Your task to perform on an android device: toggle translation in the chrome app Image 0: 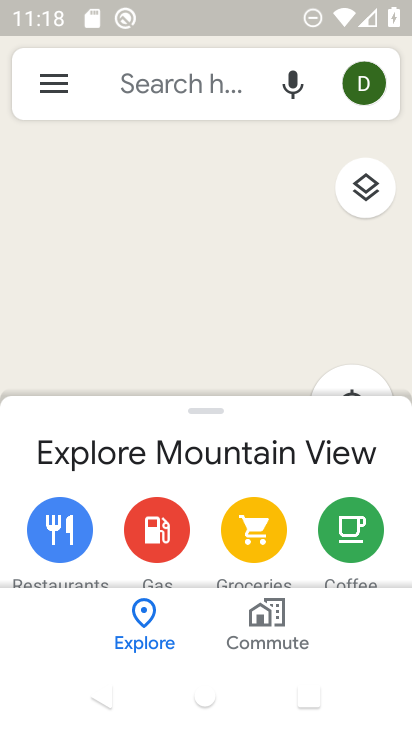
Step 0: press home button
Your task to perform on an android device: toggle translation in the chrome app Image 1: 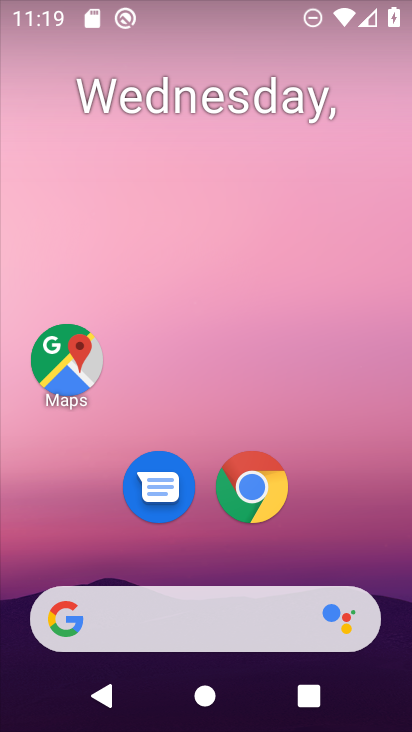
Step 1: click (255, 489)
Your task to perform on an android device: toggle translation in the chrome app Image 2: 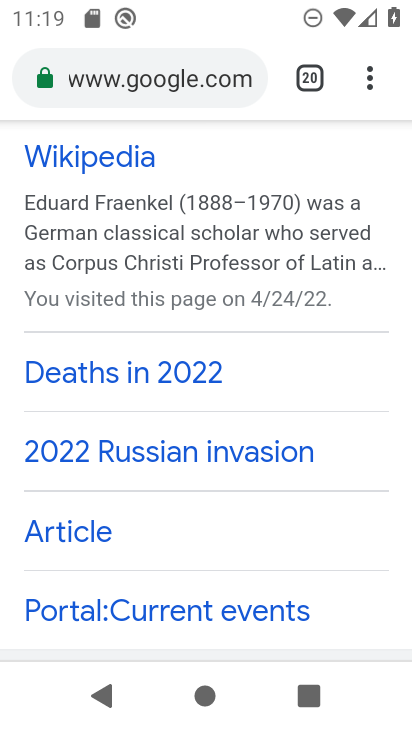
Step 2: click (367, 74)
Your task to perform on an android device: toggle translation in the chrome app Image 3: 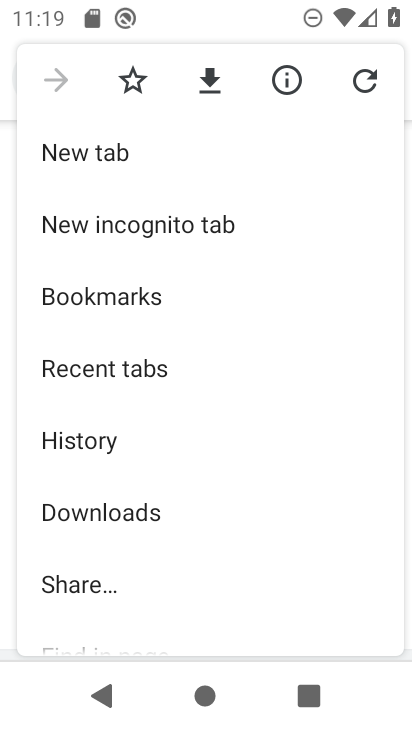
Step 3: drag from (218, 476) to (136, 203)
Your task to perform on an android device: toggle translation in the chrome app Image 4: 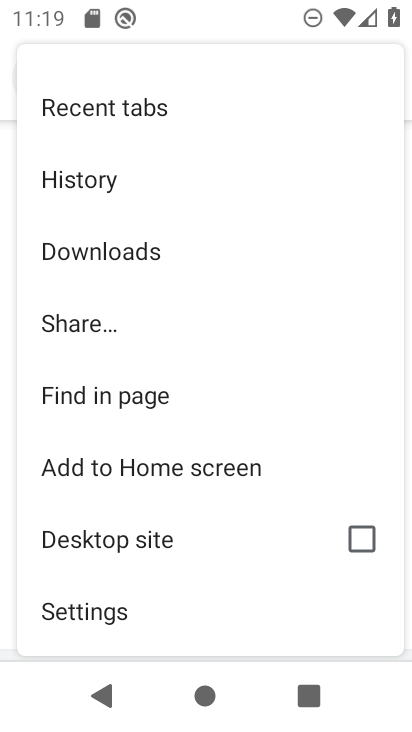
Step 4: drag from (229, 404) to (196, 37)
Your task to perform on an android device: toggle translation in the chrome app Image 5: 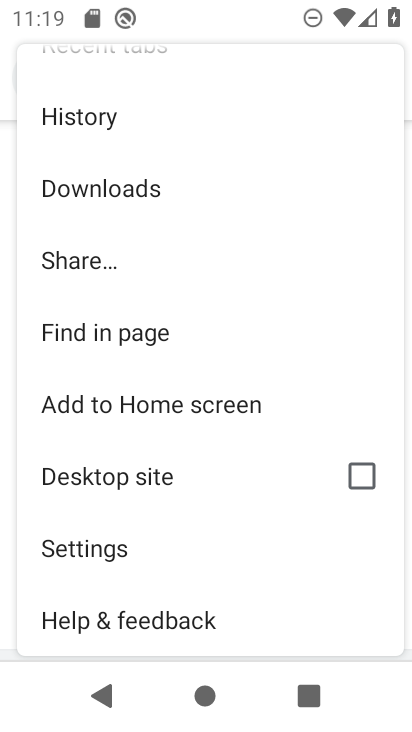
Step 5: drag from (216, 537) to (208, 215)
Your task to perform on an android device: toggle translation in the chrome app Image 6: 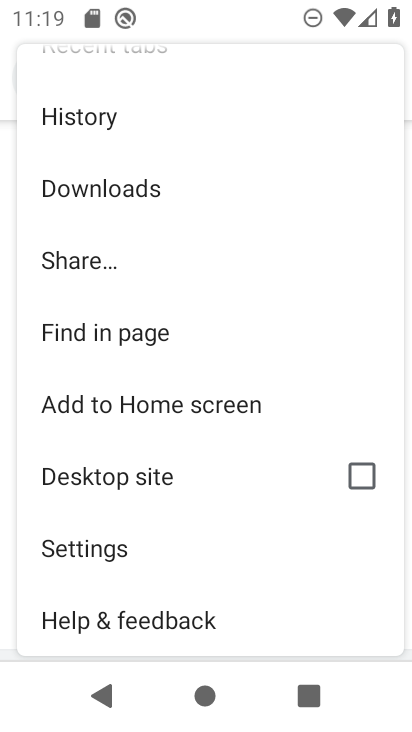
Step 6: click (76, 537)
Your task to perform on an android device: toggle translation in the chrome app Image 7: 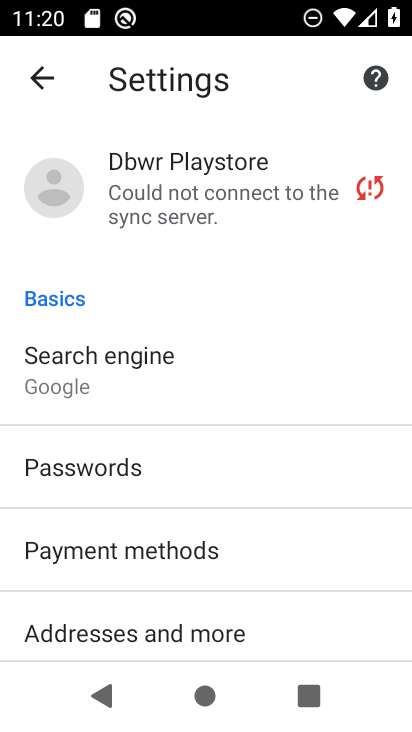
Step 7: drag from (230, 571) to (126, 144)
Your task to perform on an android device: toggle translation in the chrome app Image 8: 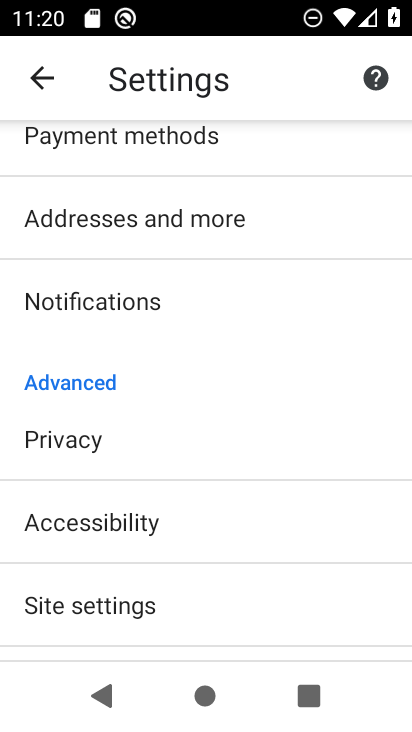
Step 8: drag from (245, 464) to (192, 29)
Your task to perform on an android device: toggle translation in the chrome app Image 9: 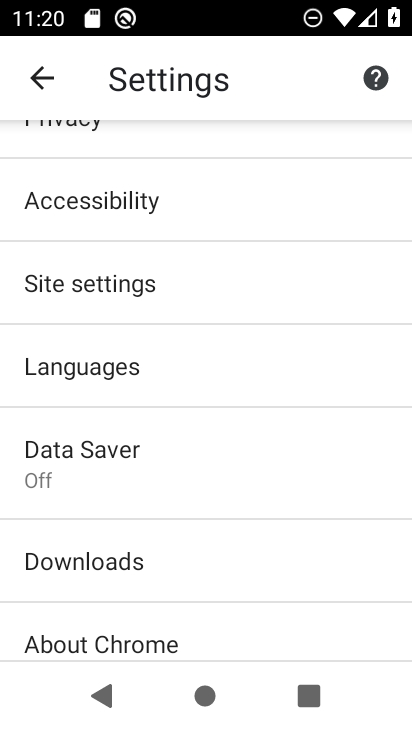
Step 9: click (92, 358)
Your task to perform on an android device: toggle translation in the chrome app Image 10: 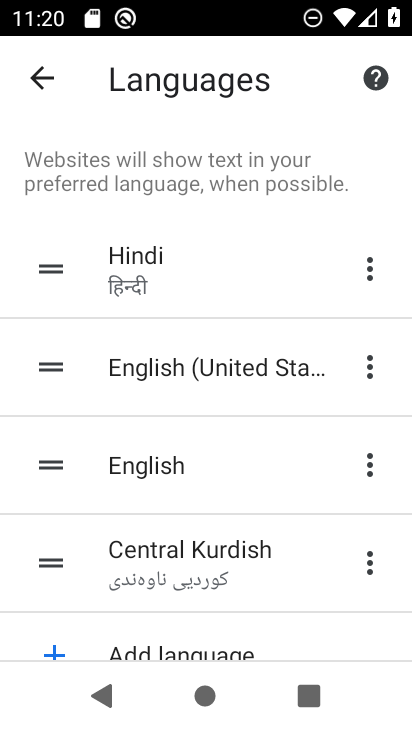
Step 10: drag from (283, 492) to (246, 105)
Your task to perform on an android device: toggle translation in the chrome app Image 11: 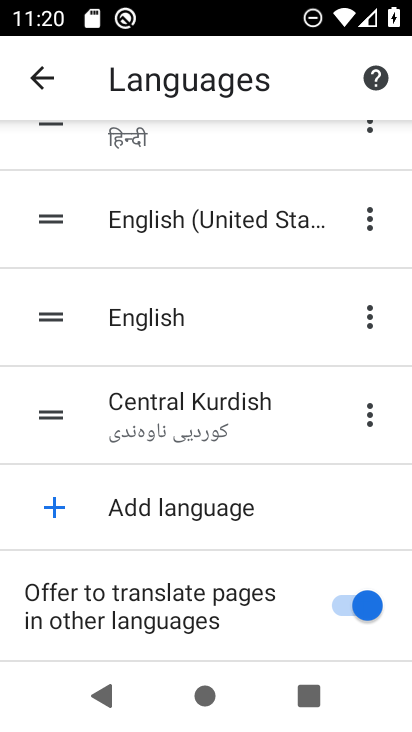
Step 11: click (354, 595)
Your task to perform on an android device: toggle translation in the chrome app Image 12: 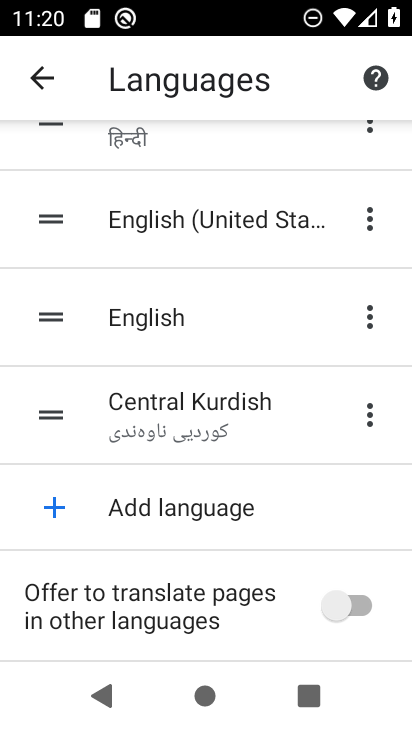
Step 12: task complete